Your task to perform on an android device: Open the calendar and show me this week's events? Image 0: 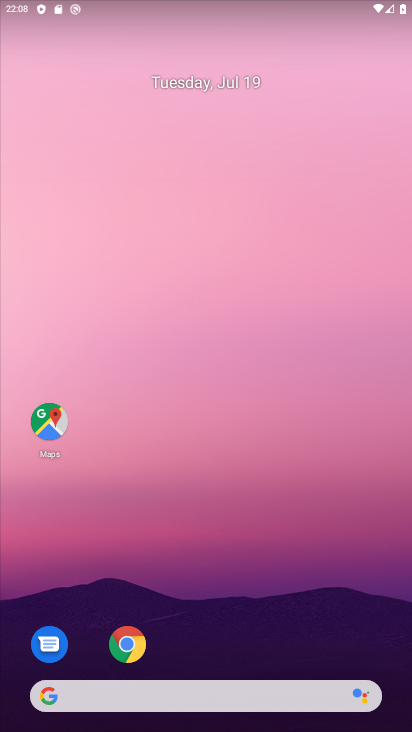
Step 0: drag from (222, 625) to (305, 78)
Your task to perform on an android device: Open the calendar and show me this week's events? Image 1: 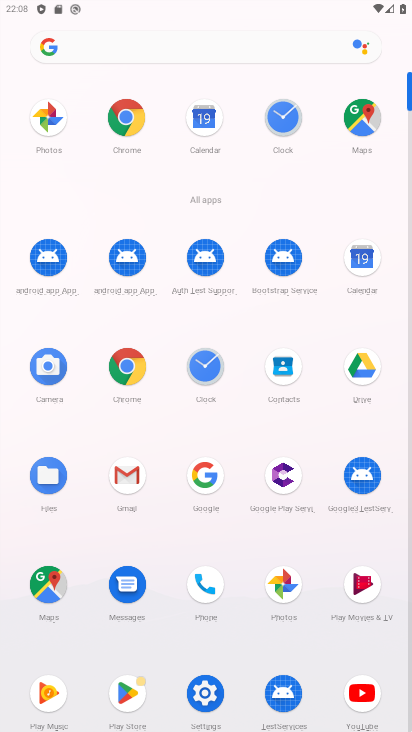
Step 1: click (356, 244)
Your task to perform on an android device: Open the calendar and show me this week's events? Image 2: 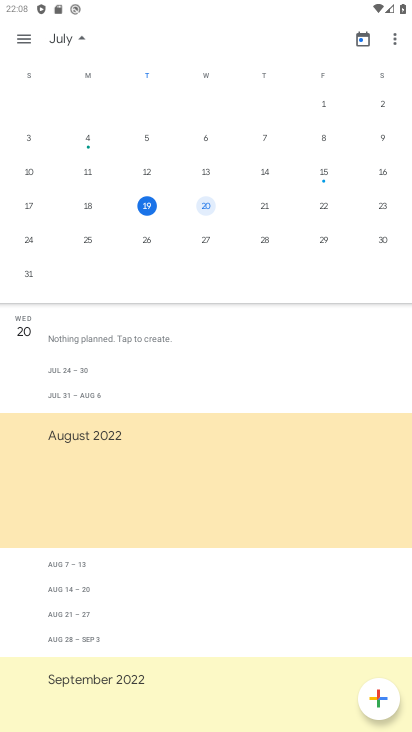
Step 2: click (204, 200)
Your task to perform on an android device: Open the calendar and show me this week's events? Image 3: 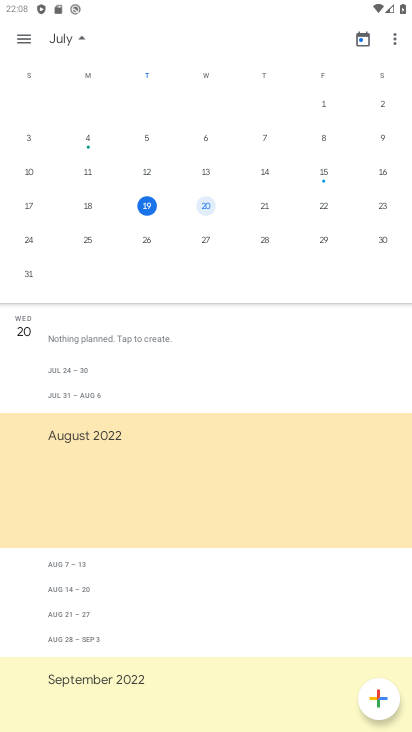
Step 3: task complete